Your task to perform on an android device: install app "Airtel Thanks" Image 0: 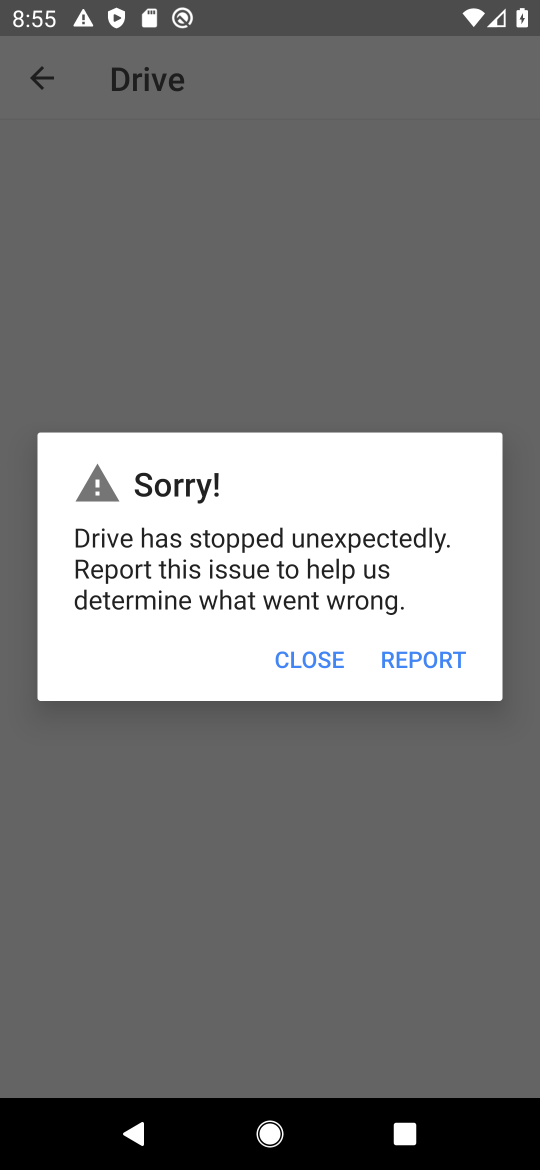
Step 0: press home button
Your task to perform on an android device: install app "Airtel Thanks" Image 1: 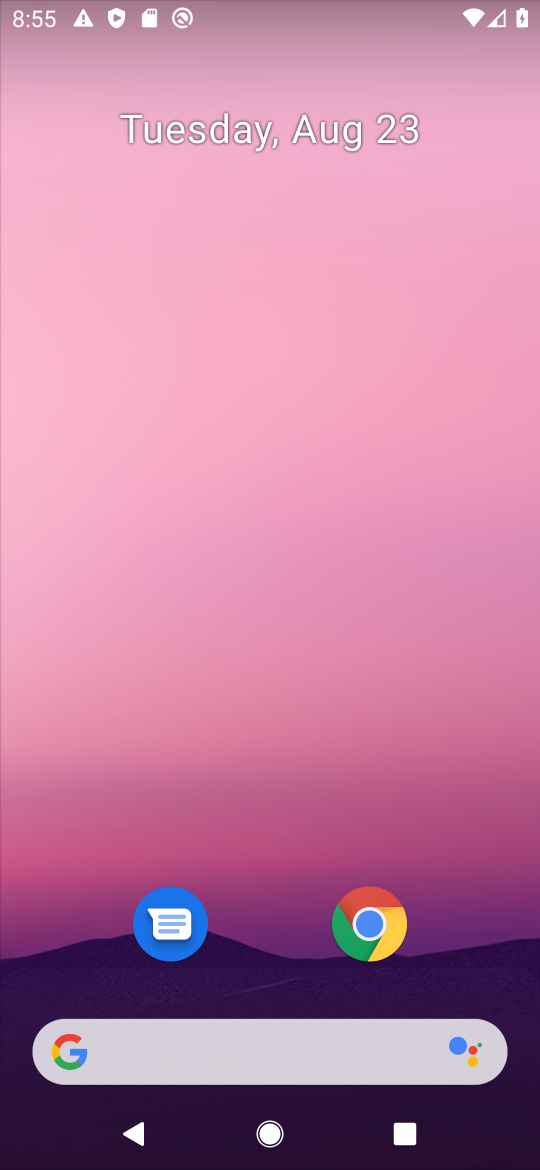
Step 1: drag from (448, 934) to (424, 95)
Your task to perform on an android device: install app "Airtel Thanks" Image 2: 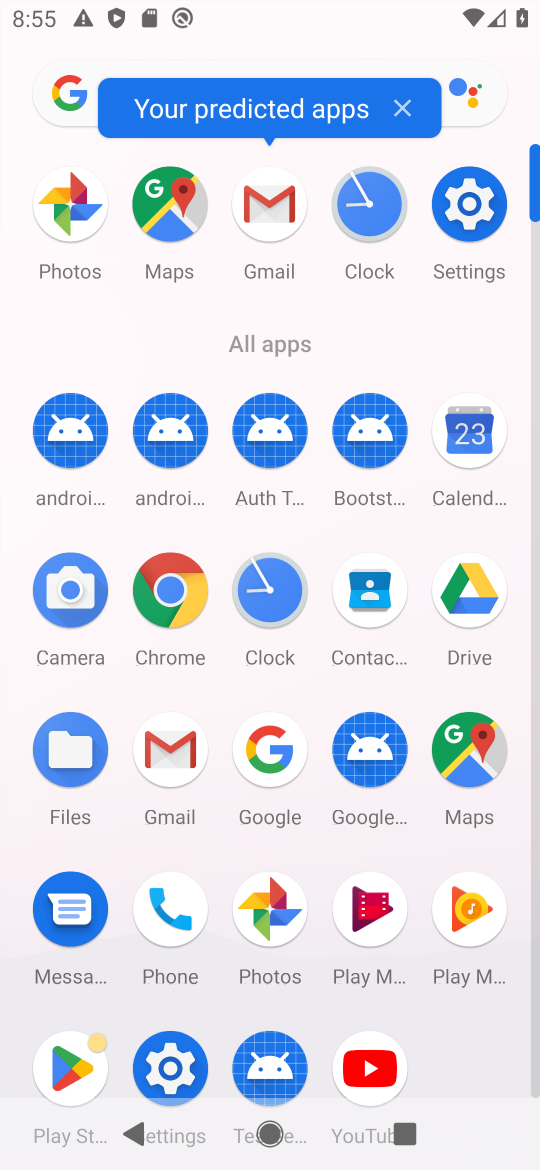
Step 2: click (59, 1071)
Your task to perform on an android device: install app "Airtel Thanks" Image 3: 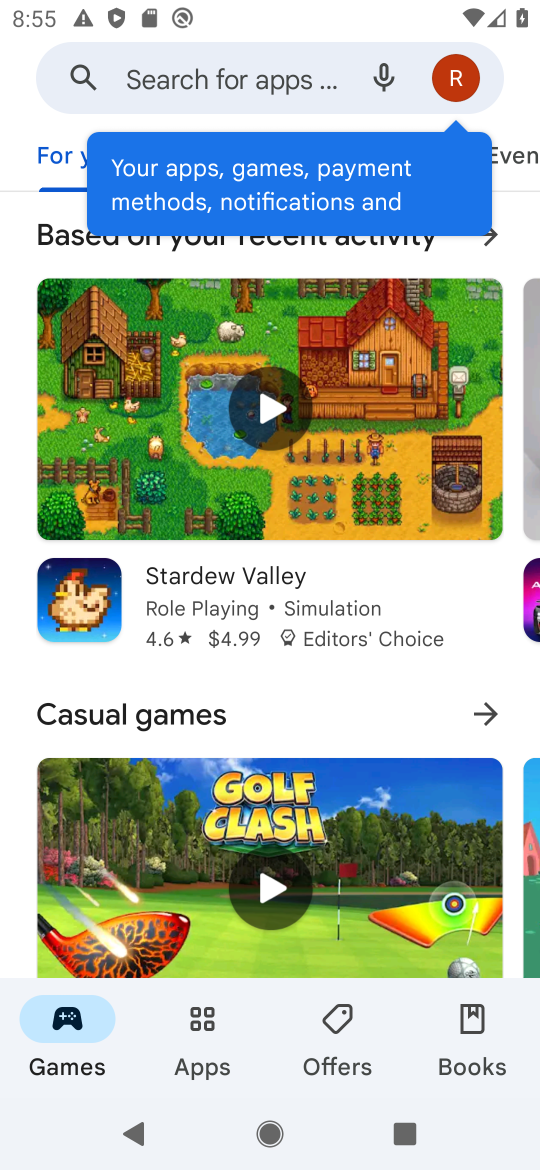
Step 3: click (238, 80)
Your task to perform on an android device: install app "Airtel Thanks" Image 4: 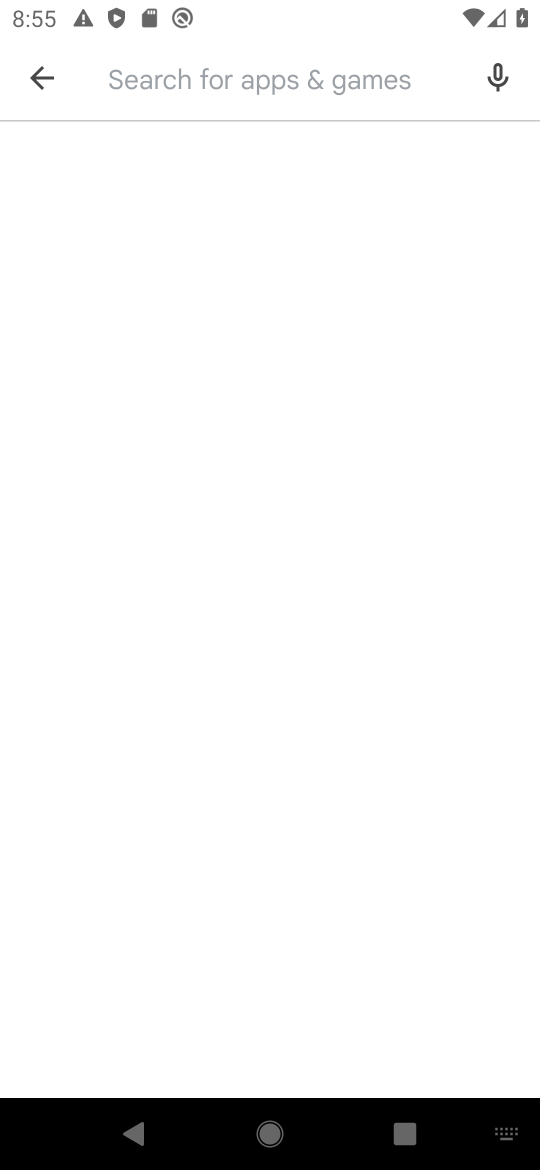
Step 4: type "Airtel Thanks"
Your task to perform on an android device: install app "Airtel Thanks" Image 5: 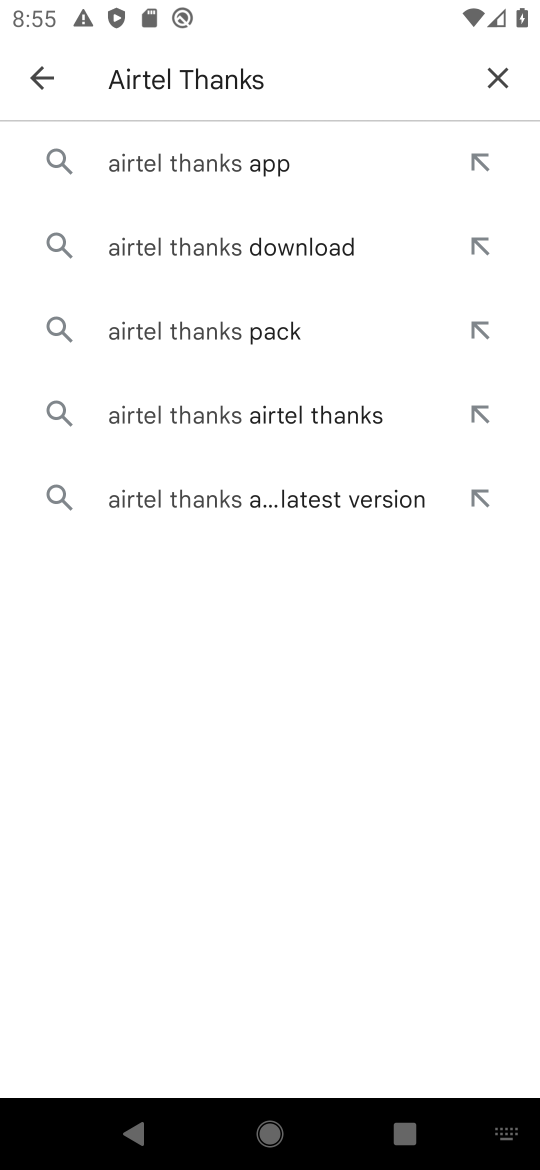
Step 5: click (280, 168)
Your task to perform on an android device: install app "Airtel Thanks" Image 6: 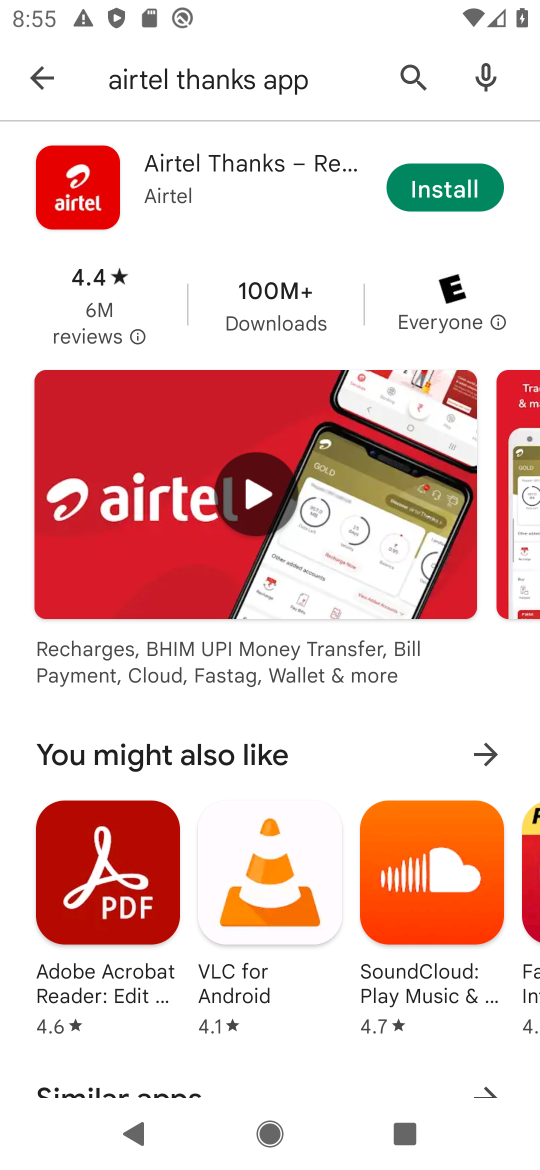
Step 6: click (452, 192)
Your task to perform on an android device: install app "Airtel Thanks" Image 7: 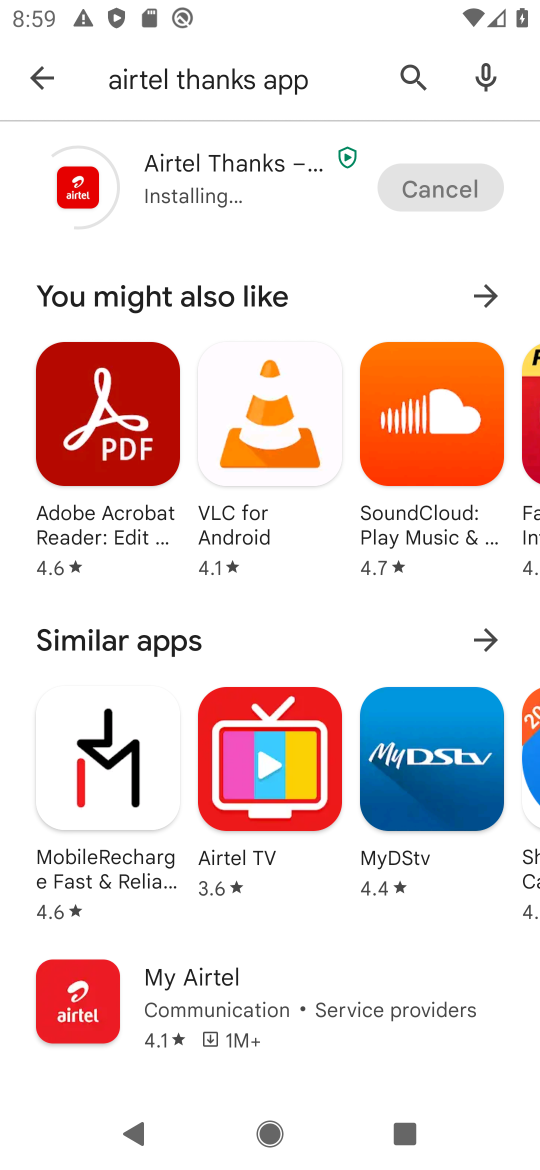
Step 7: task complete